Your task to perform on an android device: choose inbox layout in the gmail app Image 0: 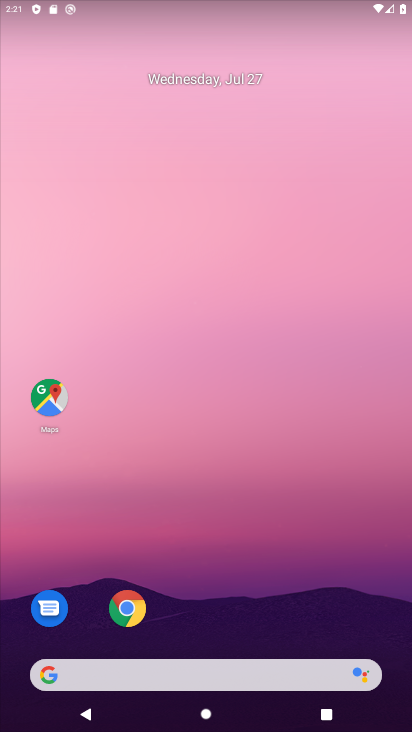
Step 0: drag from (267, 550) to (295, 99)
Your task to perform on an android device: choose inbox layout in the gmail app Image 1: 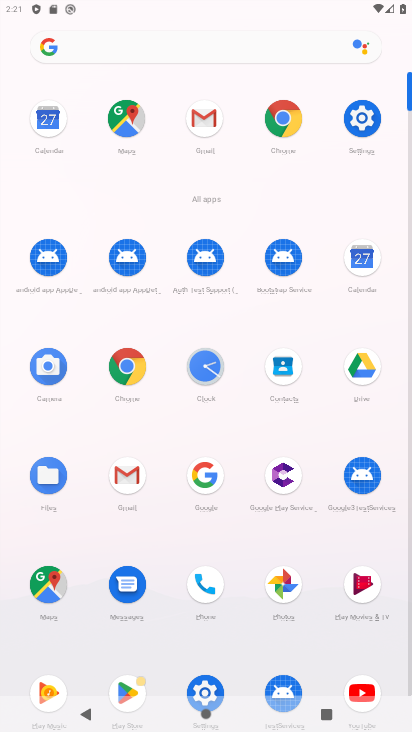
Step 1: click (123, 481)
Your task to perform on an android device: choose inbox layout in the gmail app Image 2: 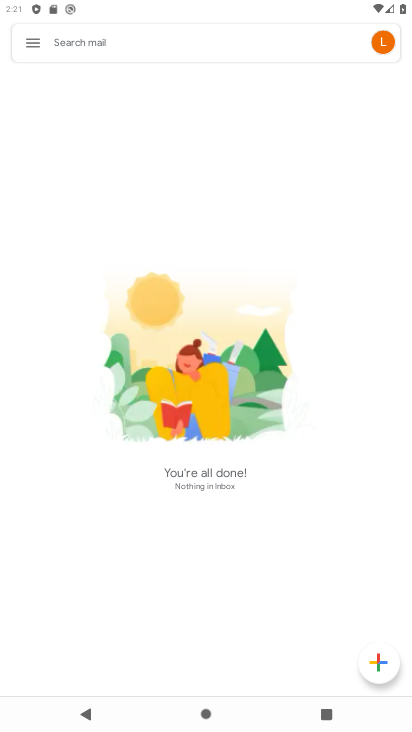
Step 2: task complete